Your task to perform on an android device: open device folders in google photos Image 0: 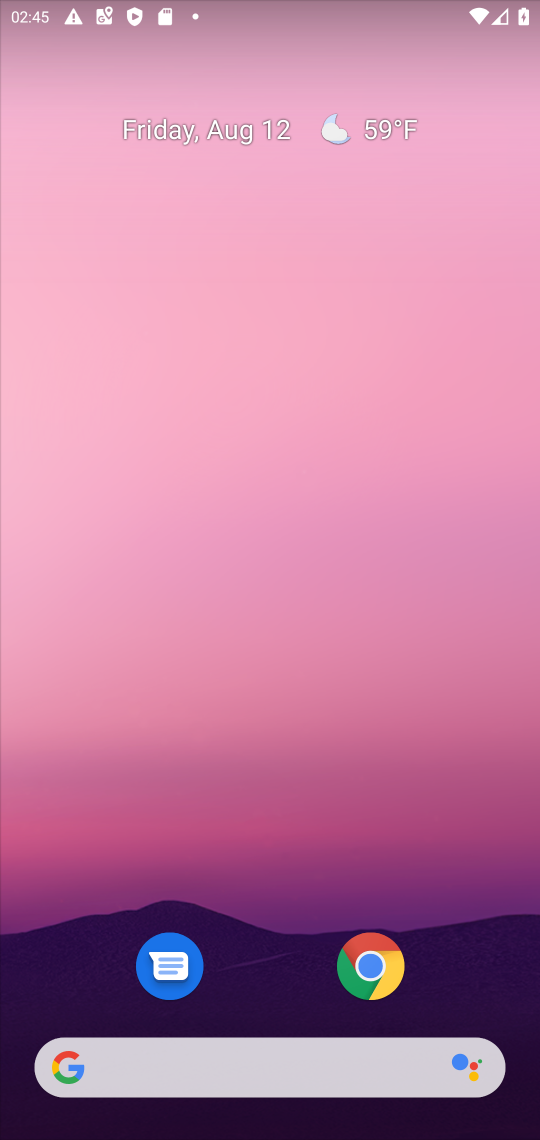
Step 0: drag from (275, 918) to (410, 11)
Your task to perform on an android device: open device folders in google photos Image 1: 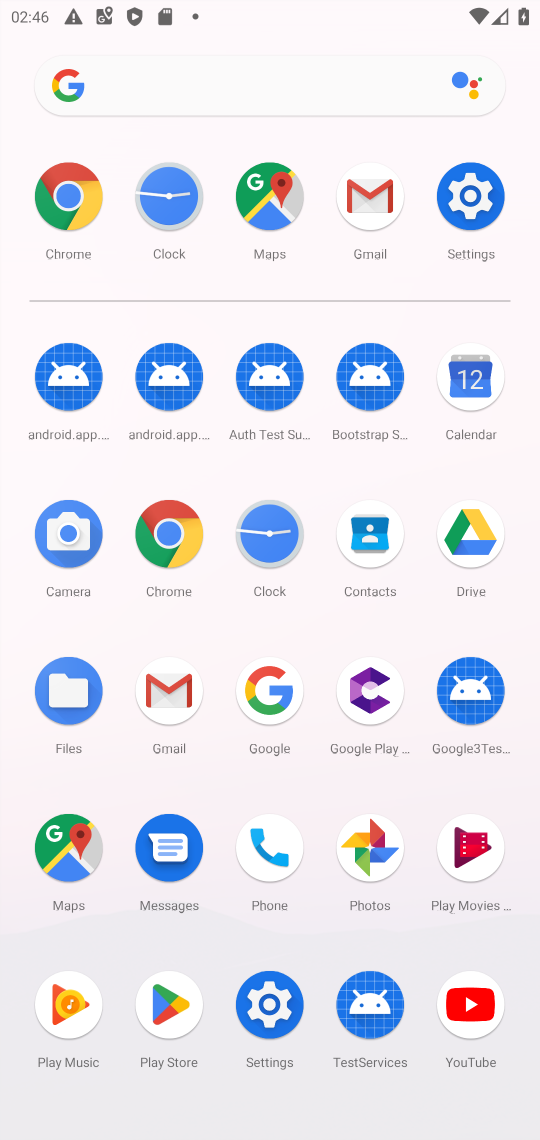
Step 1: click (371, 859)
Your task to perform on an android device: open device folders in google photos Image 2: 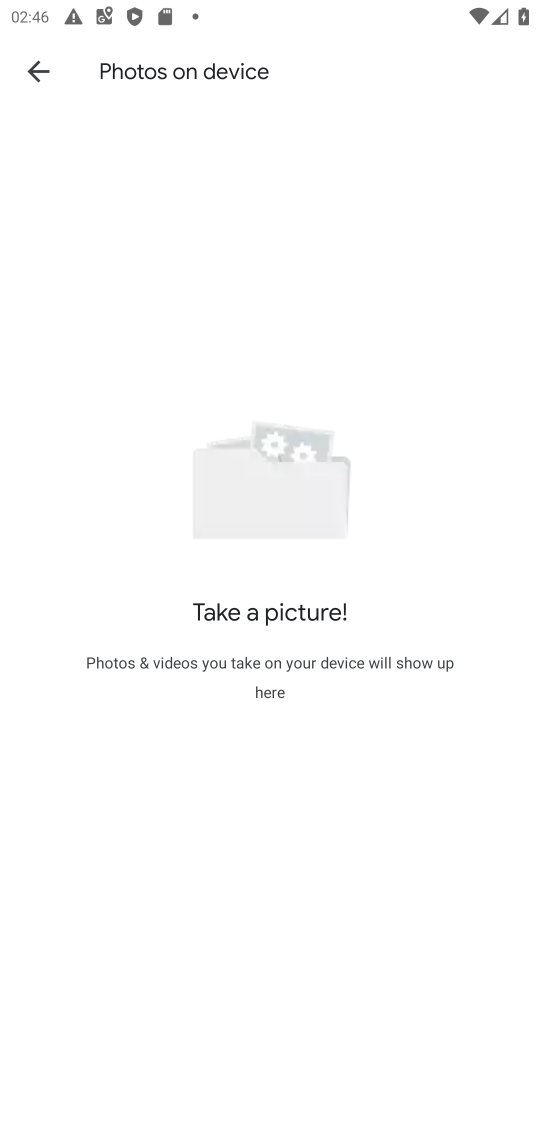
Step 2: click (43, 77)
Your task to perform on an android device: open device folders in google photos Image 3: 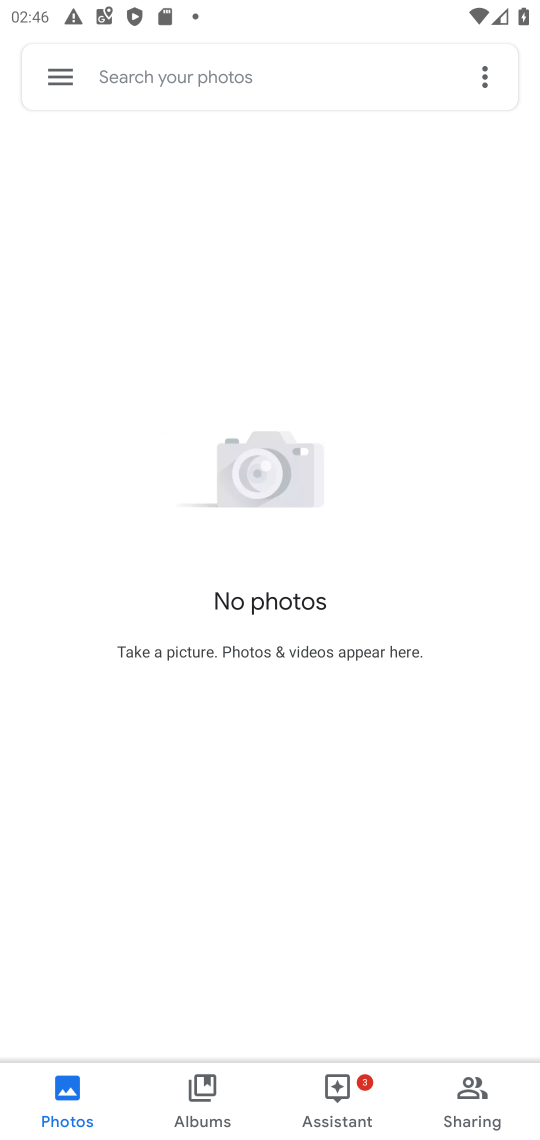
Step 3: click (43, 77)
Your task to perform on an android device: open device folders in google photos Image 4: 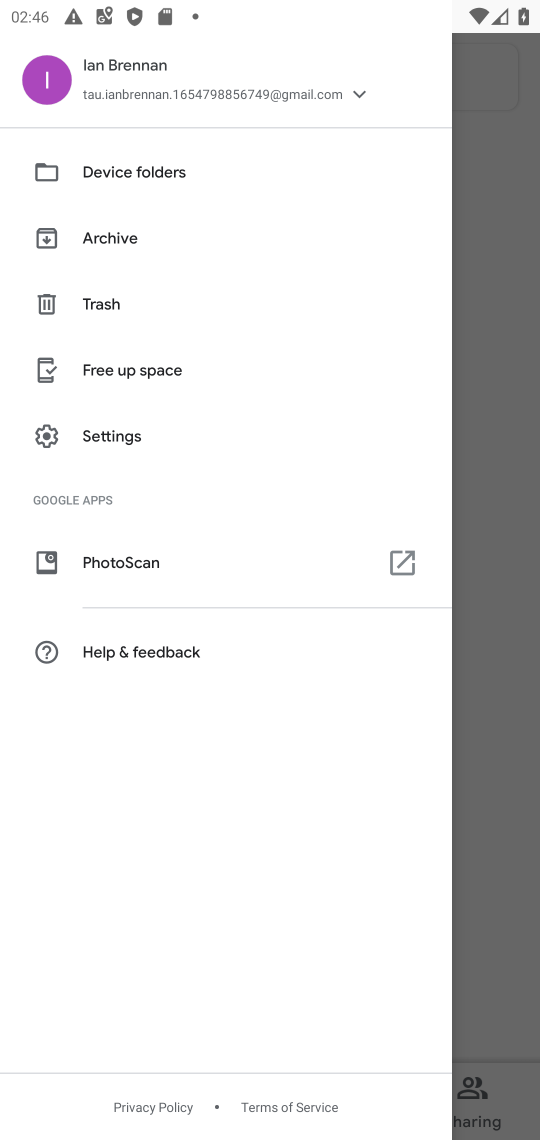
Step 4: click (114, 168)
Your task to perform on an android device: open device folders in google photos Image 5: 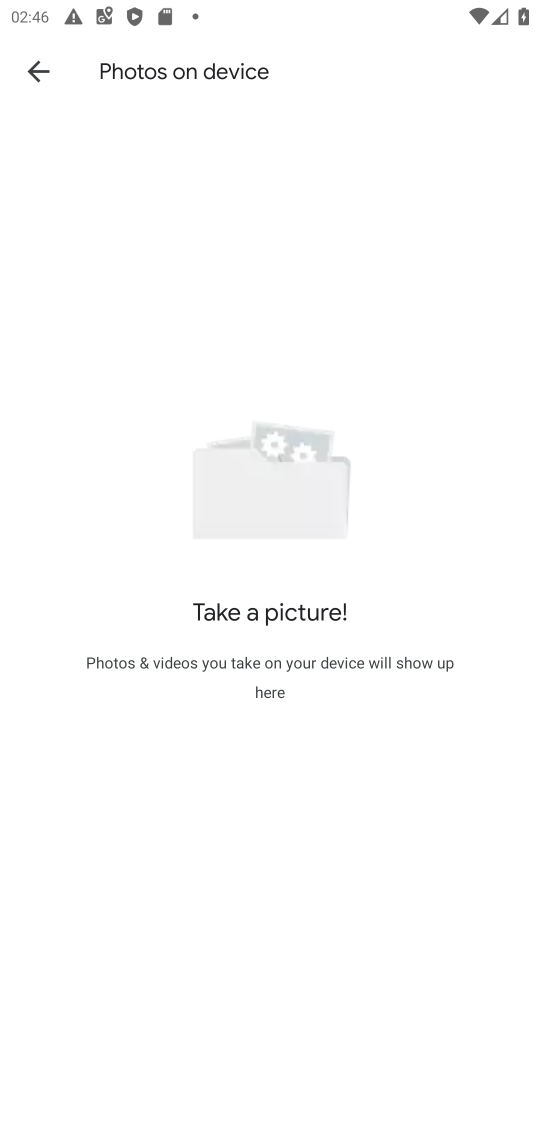
Step 5: task complete